Your task to perform on an android device: Open Chrome and go to the settings page Image 0: 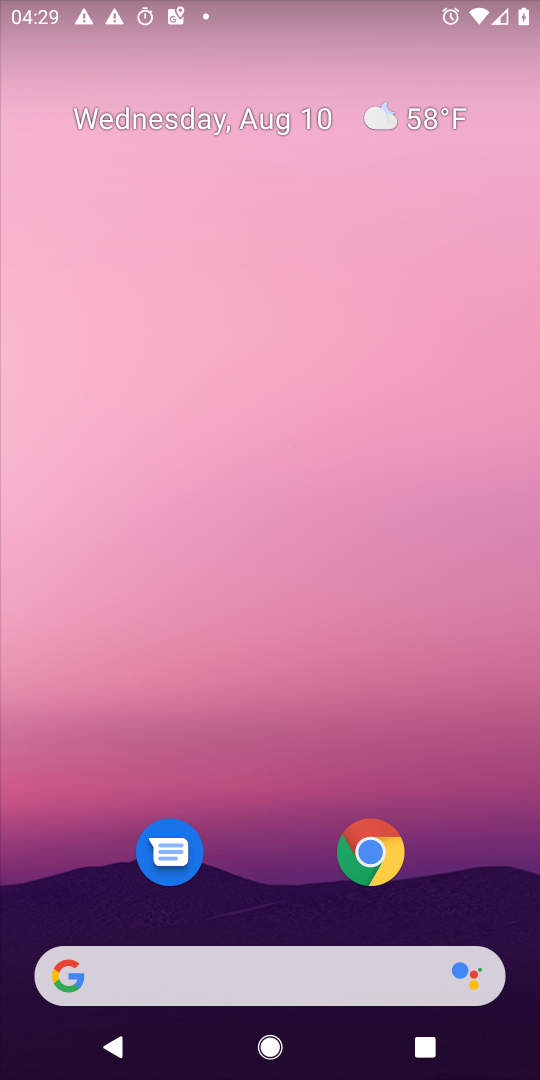
Step 0: drag from (469, 867) to (429, 268)
Your task to perform on an android device: Open Chrome and go to the settings page Image 1: 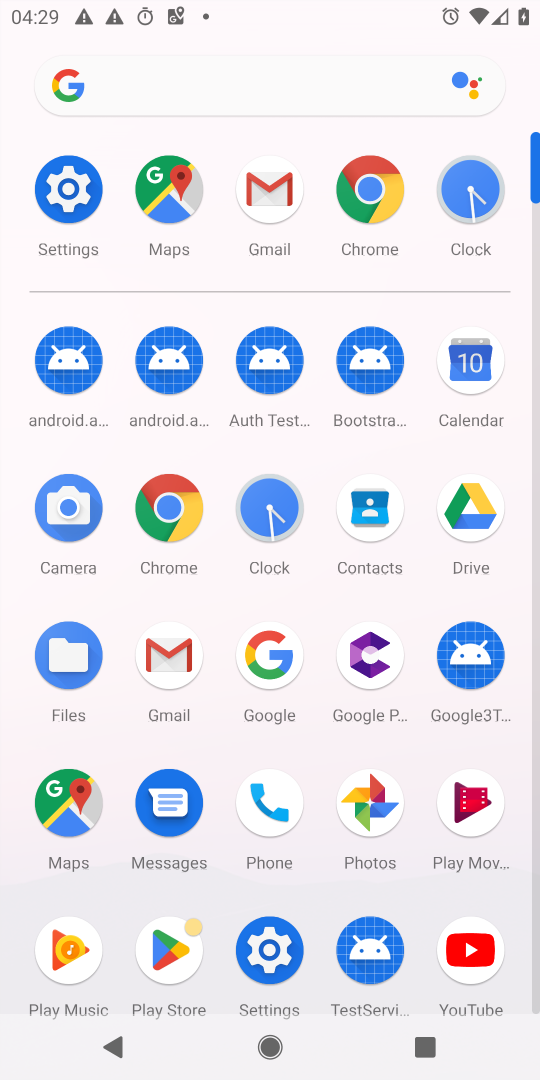
Step 1: click (177, 509)
Your task to perform on an android device: Open Chrome and go to the settings page Image 2: 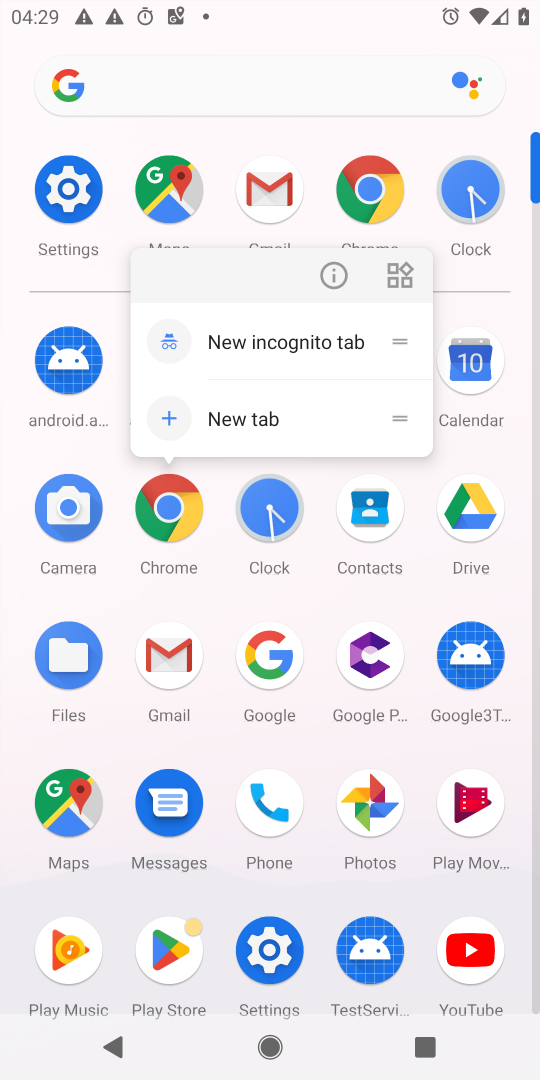
Step 2: click (178, 510)
Your task to perform on an android device: Open Chrome and go to the settings page Image 3: 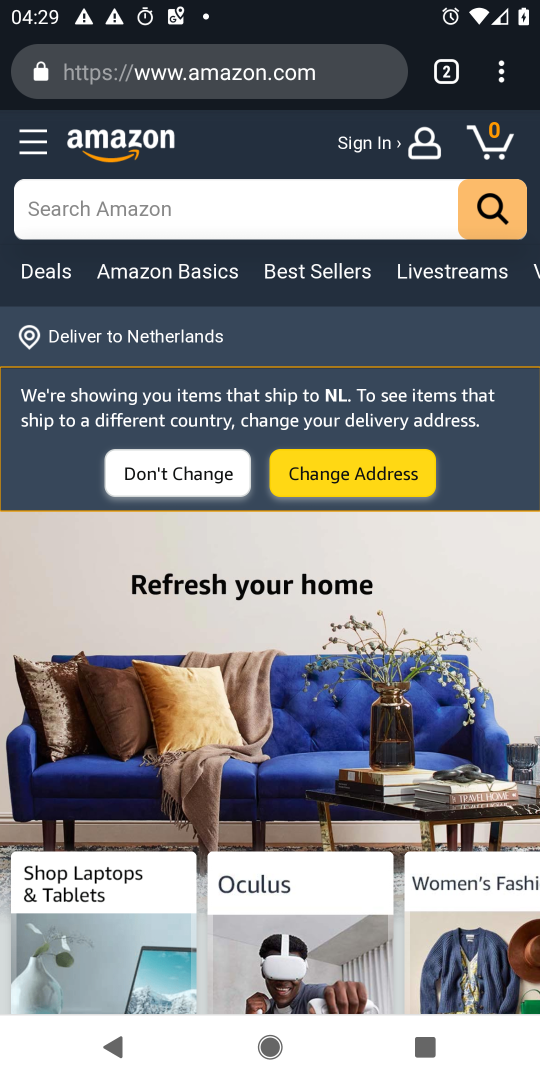
Step 3: click (498, 68)
Your task to perform on an android device: Open Chrome and go to the settings page Image 4: 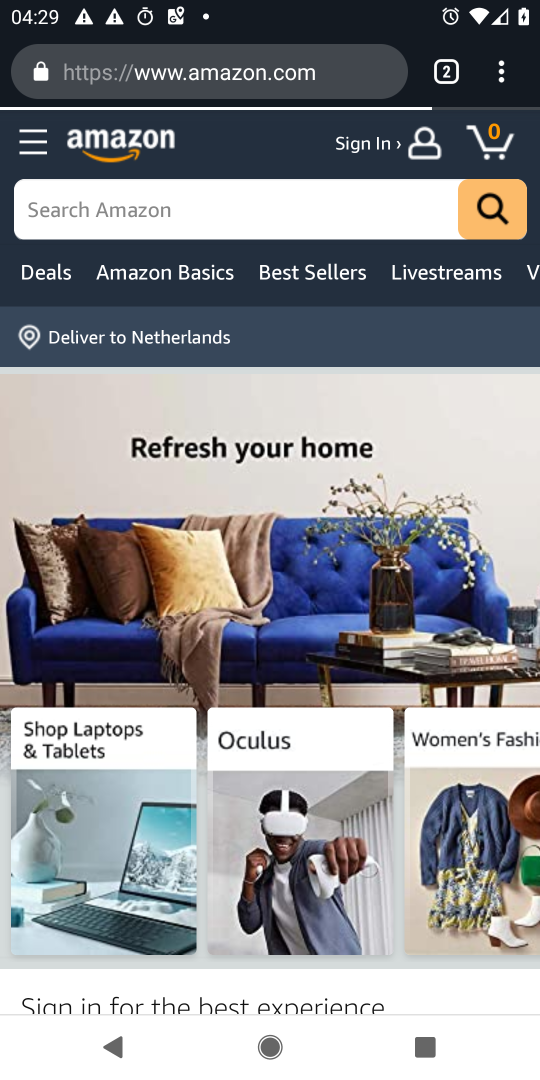
Step 4: task complete